Your task to perform on an android device: Go to CNN.com Image 0: 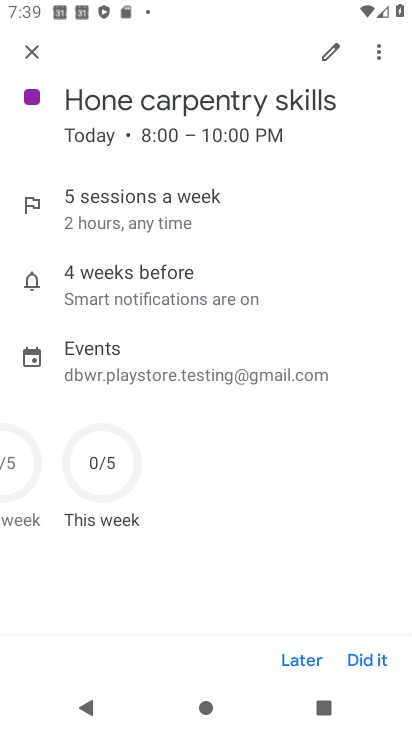
Step 0: press home button
Your task to perform on an android device: Go to CNN.com Image 1: 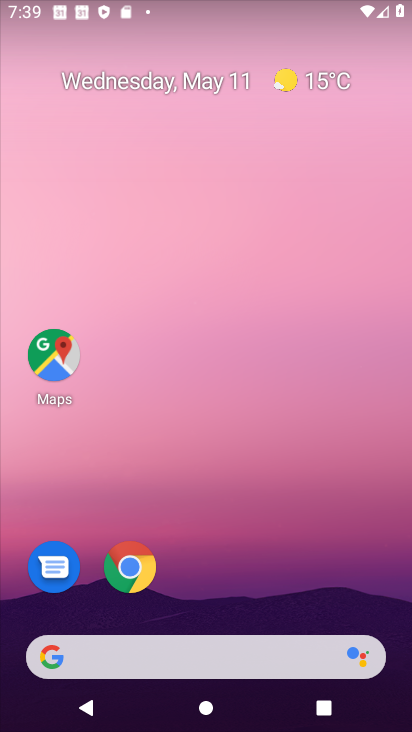
Step 1: click (139, 574)
Your task to perform on an android device: Go to CNN.com Image 2: 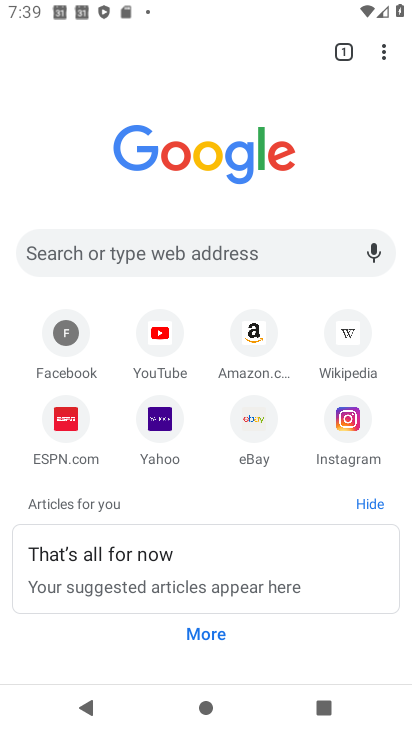
Step 2: click (193, 257)
Your task to perform on an android device: Go to CNN.com Image 3: 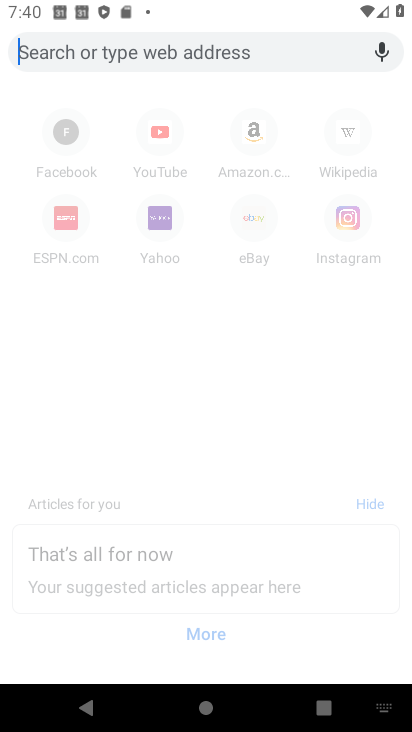
Step 3: type "cnn.com"
Your task to perform on an android device: Go to CNN.com Image 4: 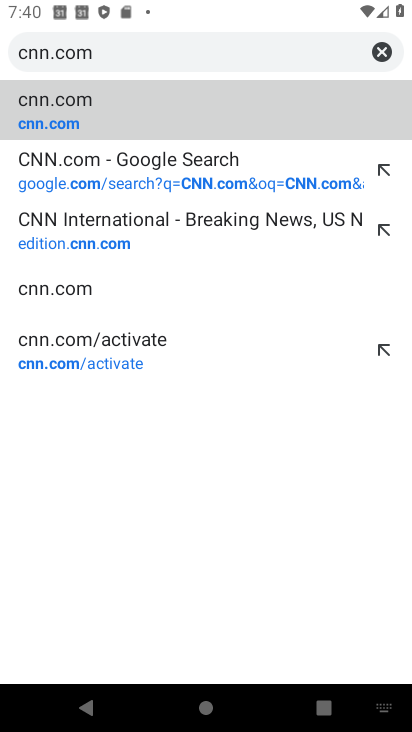
Step 4: click (58, 108)
Your task to perform on an android device: Go to CNN.com Image 5: 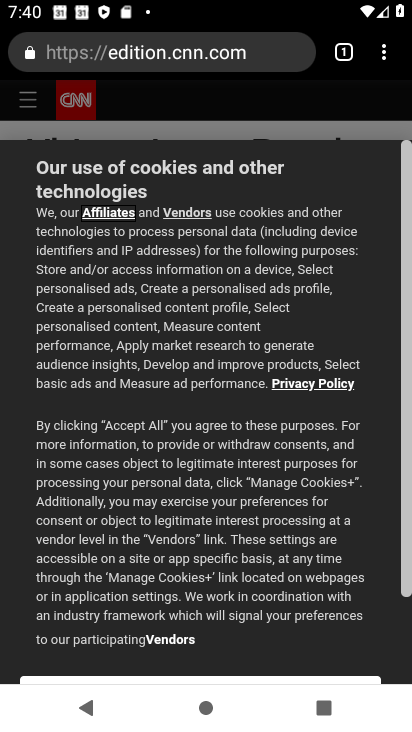
Step 5: task complete